Your task to perform on an android device: install app "WhatsApp Messenger" Image 0: 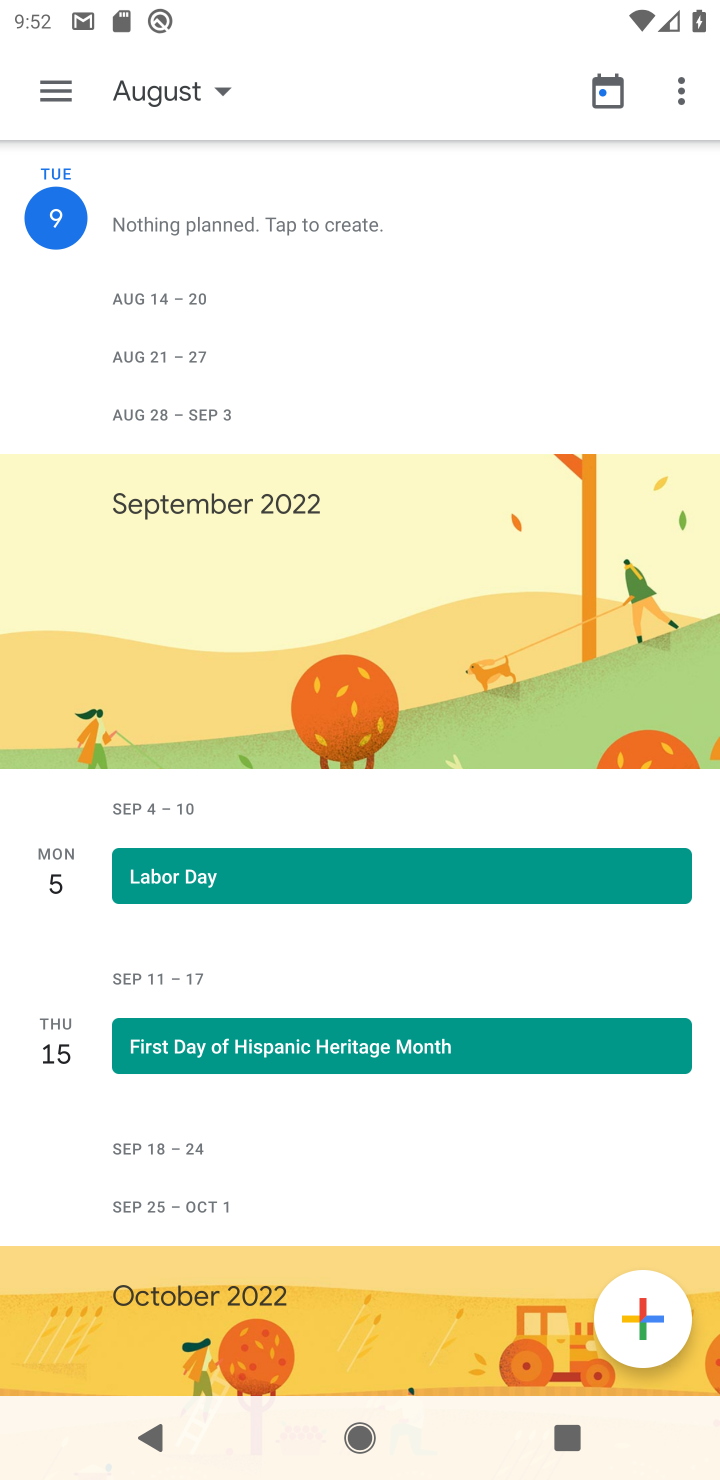
Step 0: press back button
Your task to perform on an android device: install app "WhatsApp Messenger" Image 1: 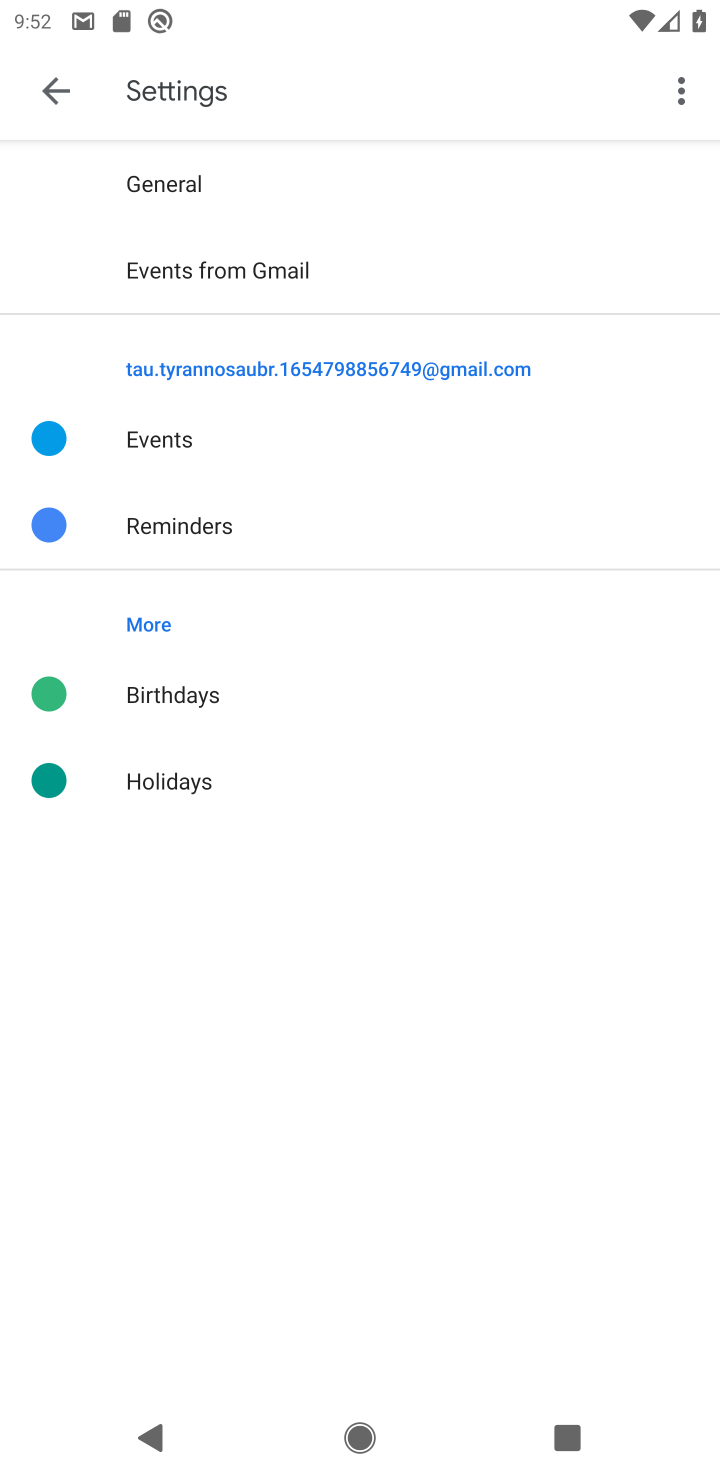
Step 1: press back button
Your task to perform on an android device: install app "WhatsApp Messenger" Image 2: 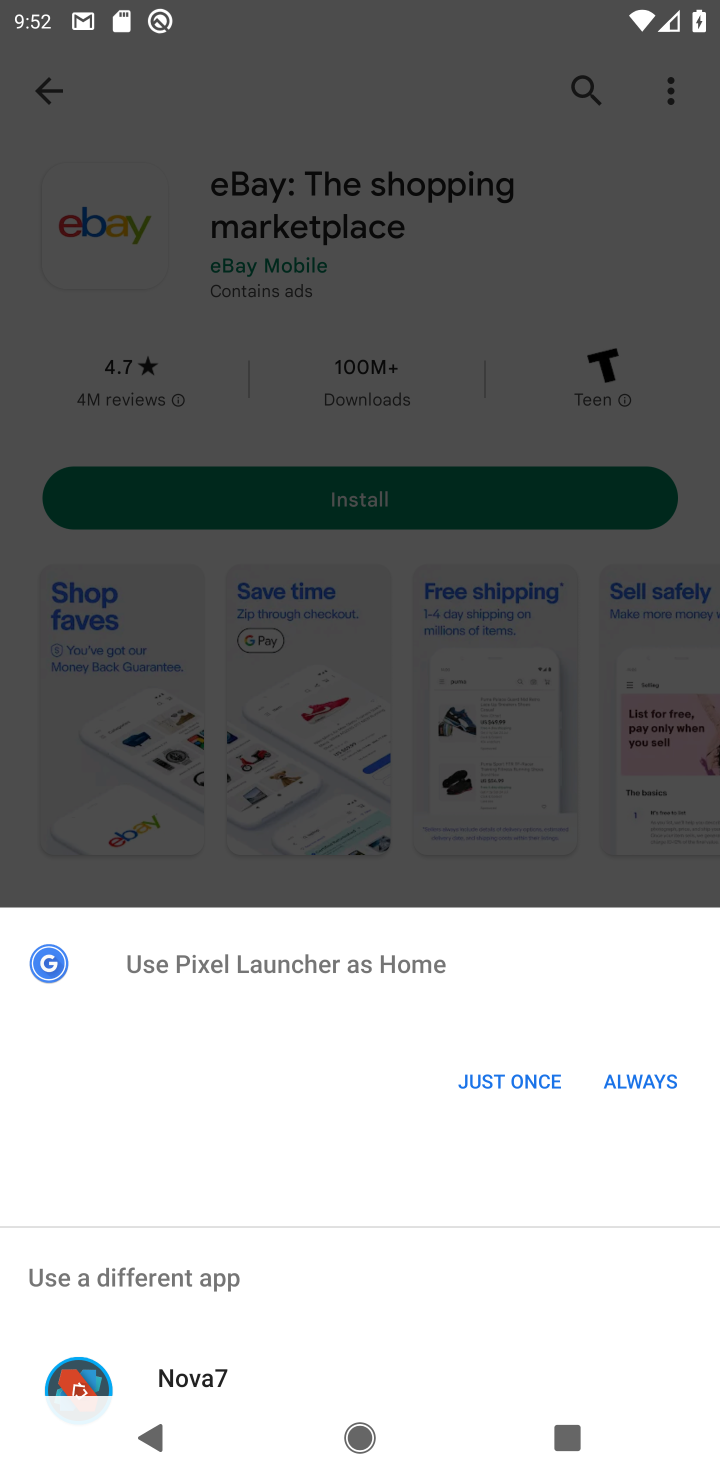
Step 2: click (658, 1077)
Your task to perform on an android device: install app "WhatsApp Messenger" Image 3: 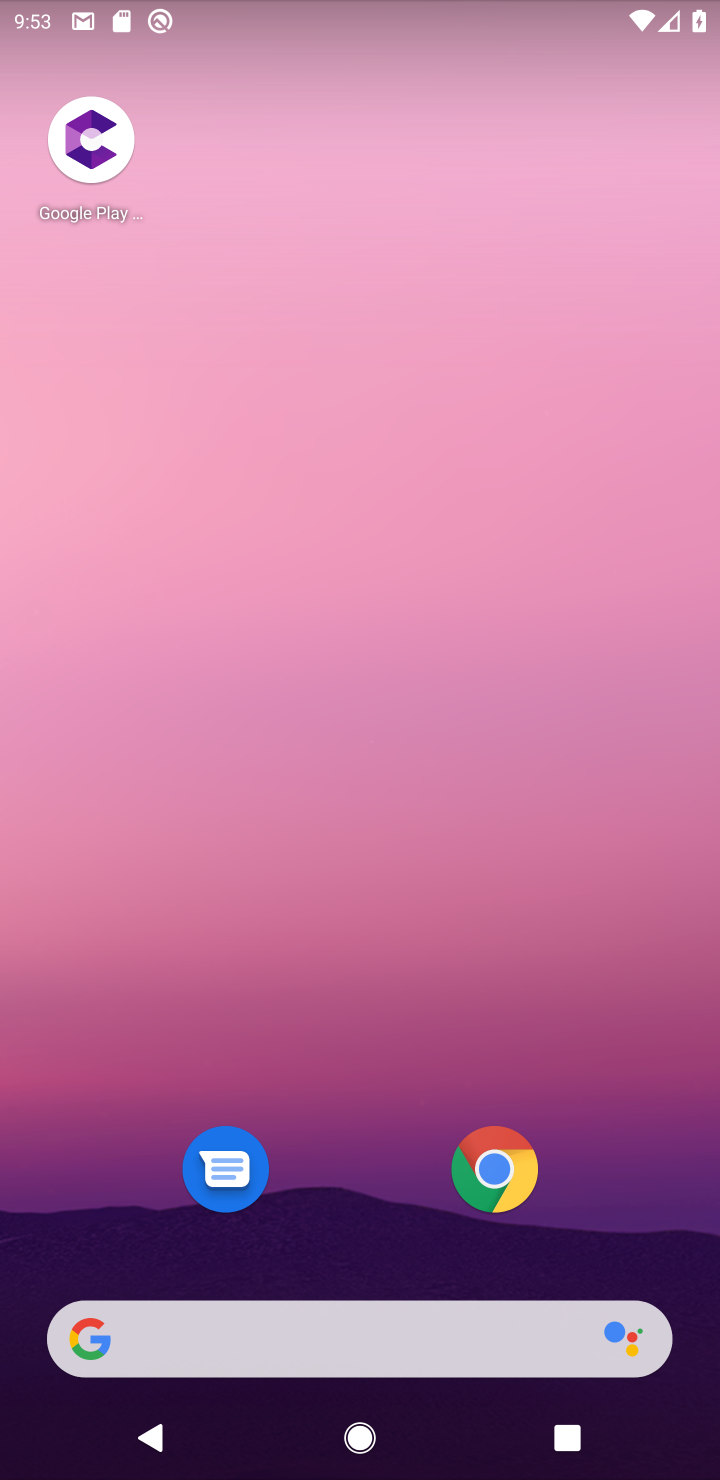
Step 3: drag from (595, 1089) to (551, 165)
Your task to perform on an android device: install app "WhatsApp Messenger" Image 4: 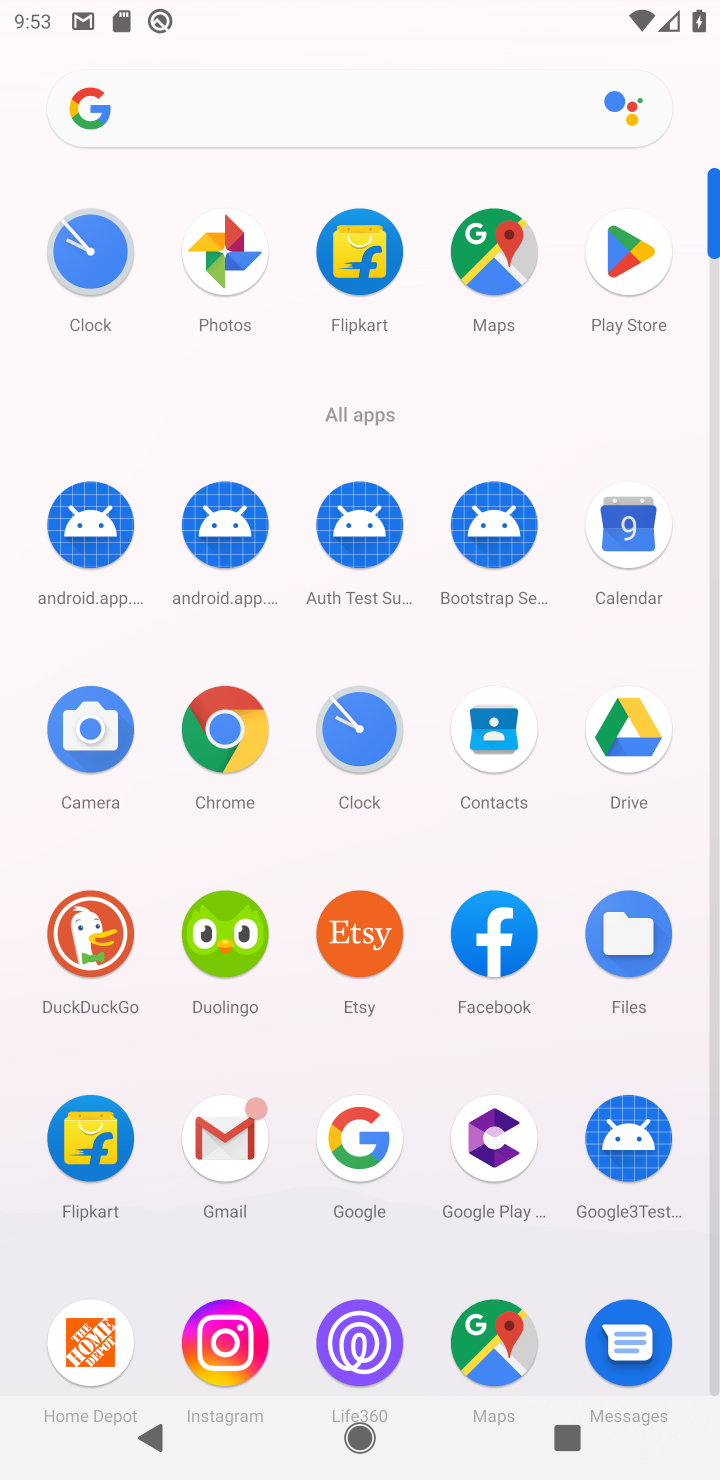
Step 4: click (632, 227)
Your task to perform on an android device: install app "WhatsApp Messenger" Image 5: 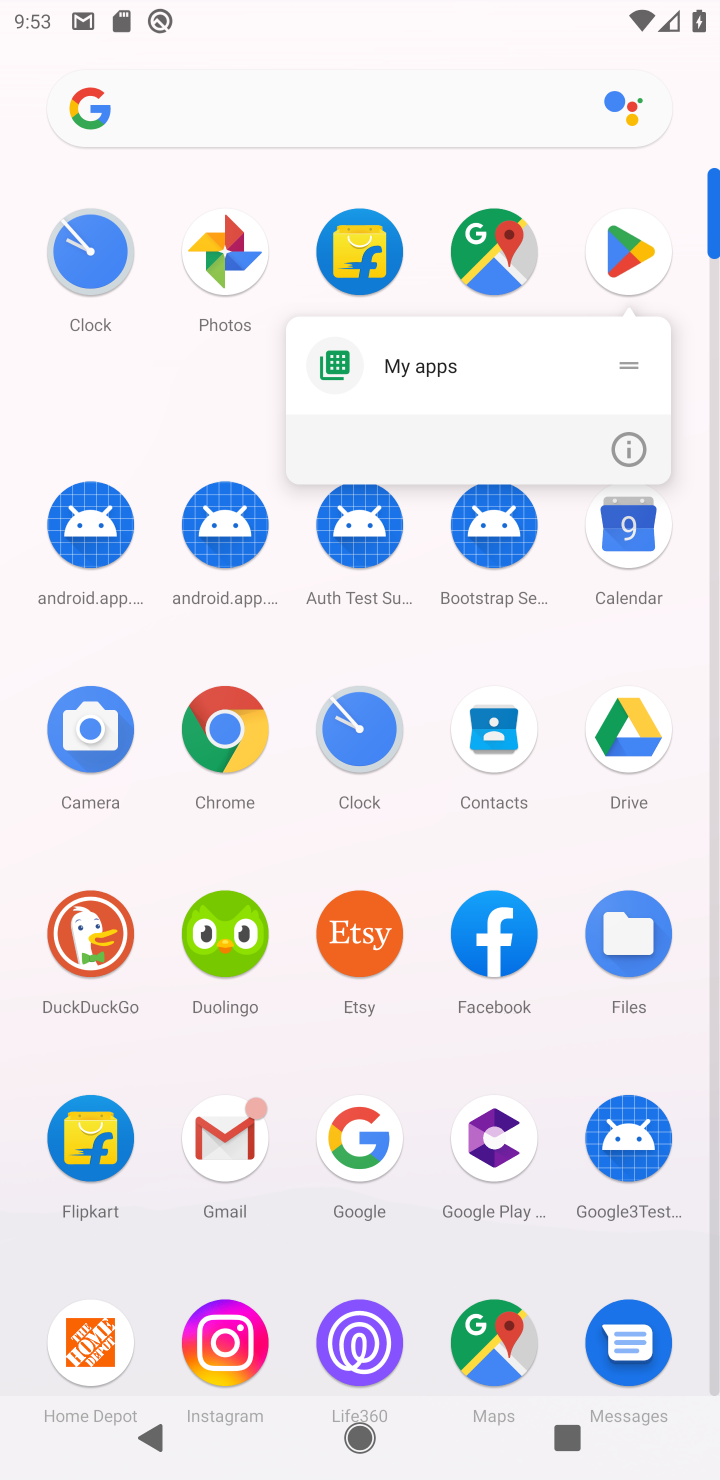
Step 5: click (640, 257)
Your task to perform on an android device: install app "WhatsApp Messenger" Image 6: 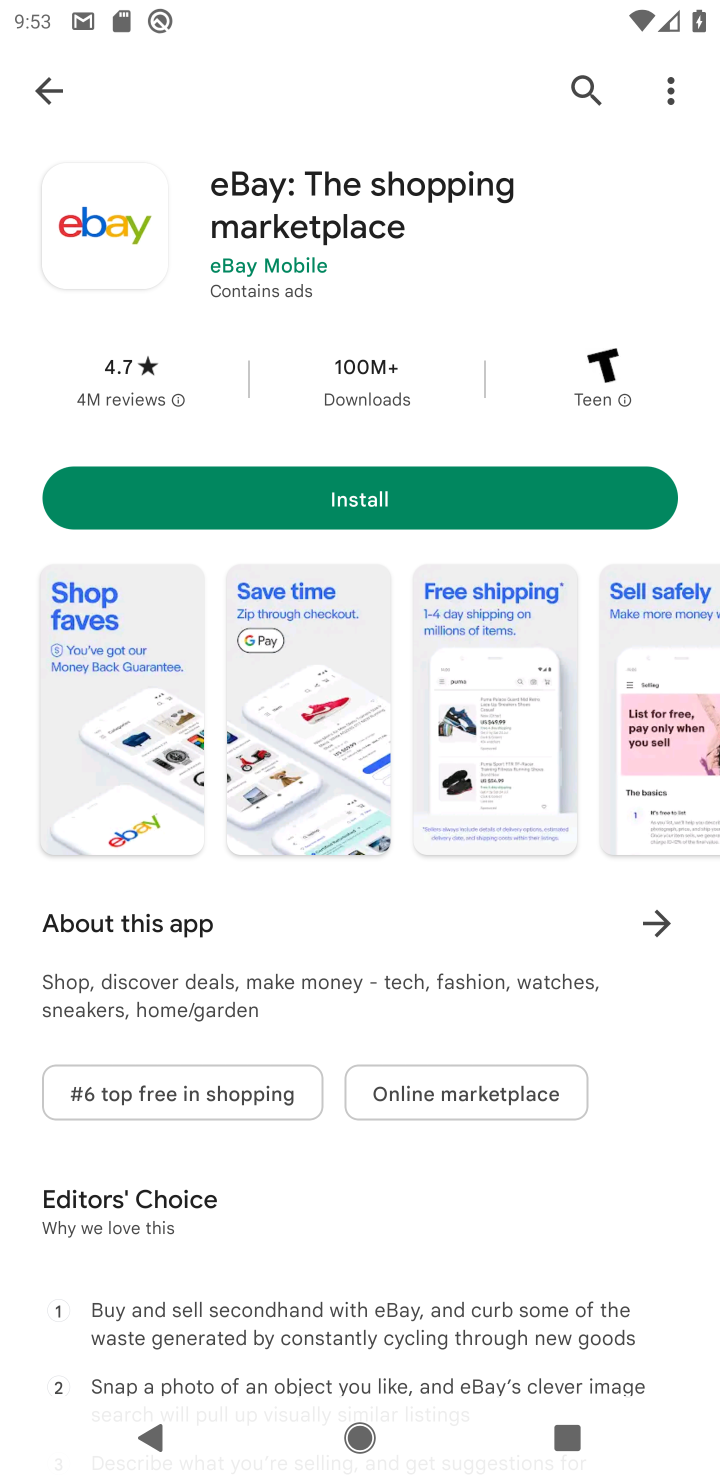
Step 6: click (595, 68)
Your task to perform on an android device: install app "WhatsApp Messenger" Image 7: 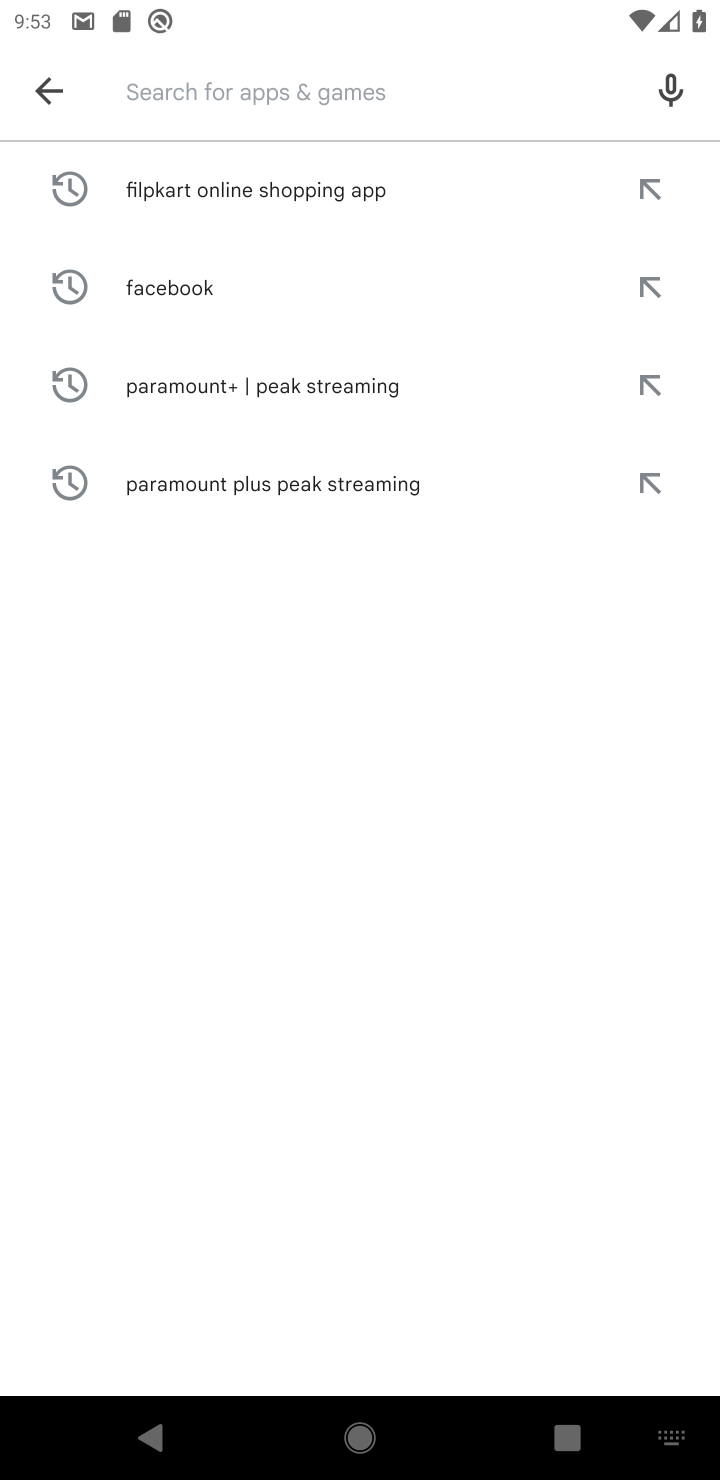
Step 7: type "whatsapp messenger"
Your task to perform on an android device: install app "WhatsApp Messenger" Image 8: 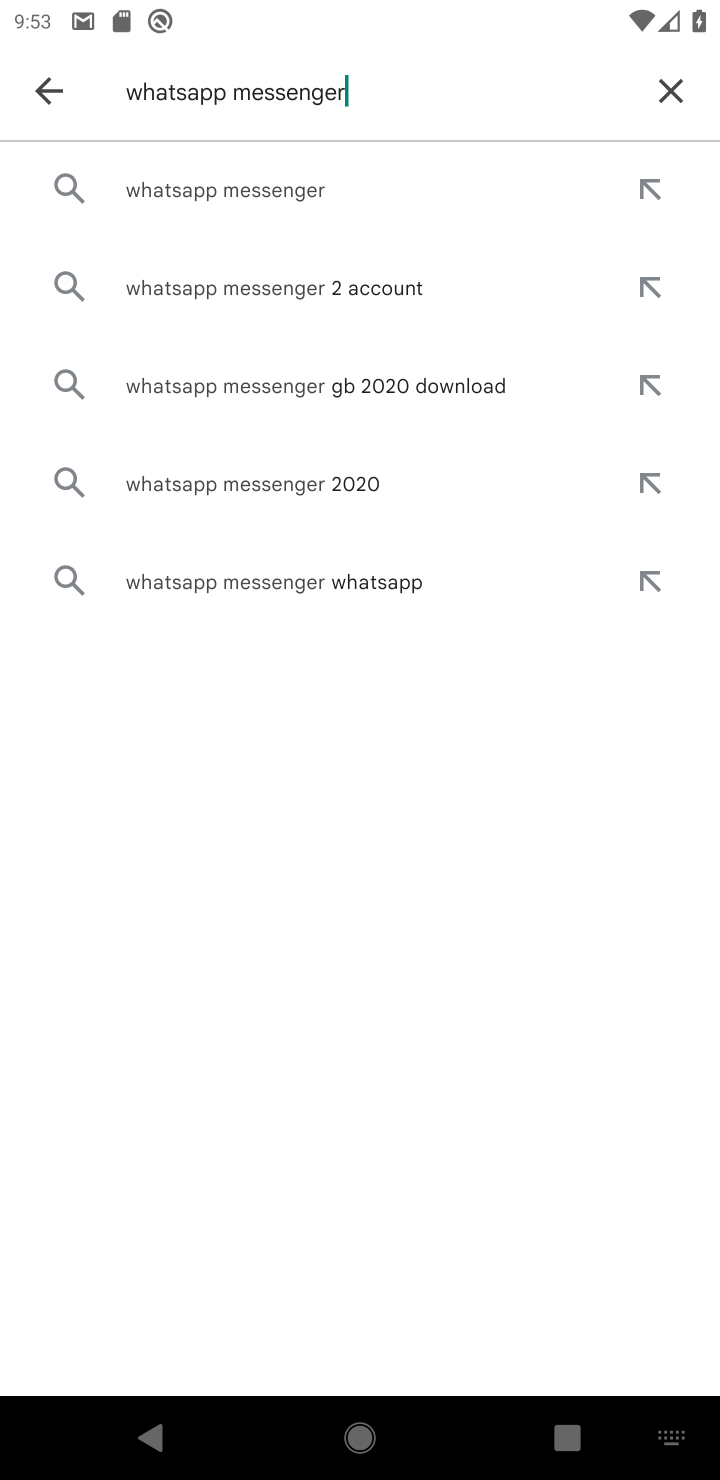
Step 8: click (299, 190)
Your task to perform on an android device: install app "WhatsApp Messenger" Image 9: 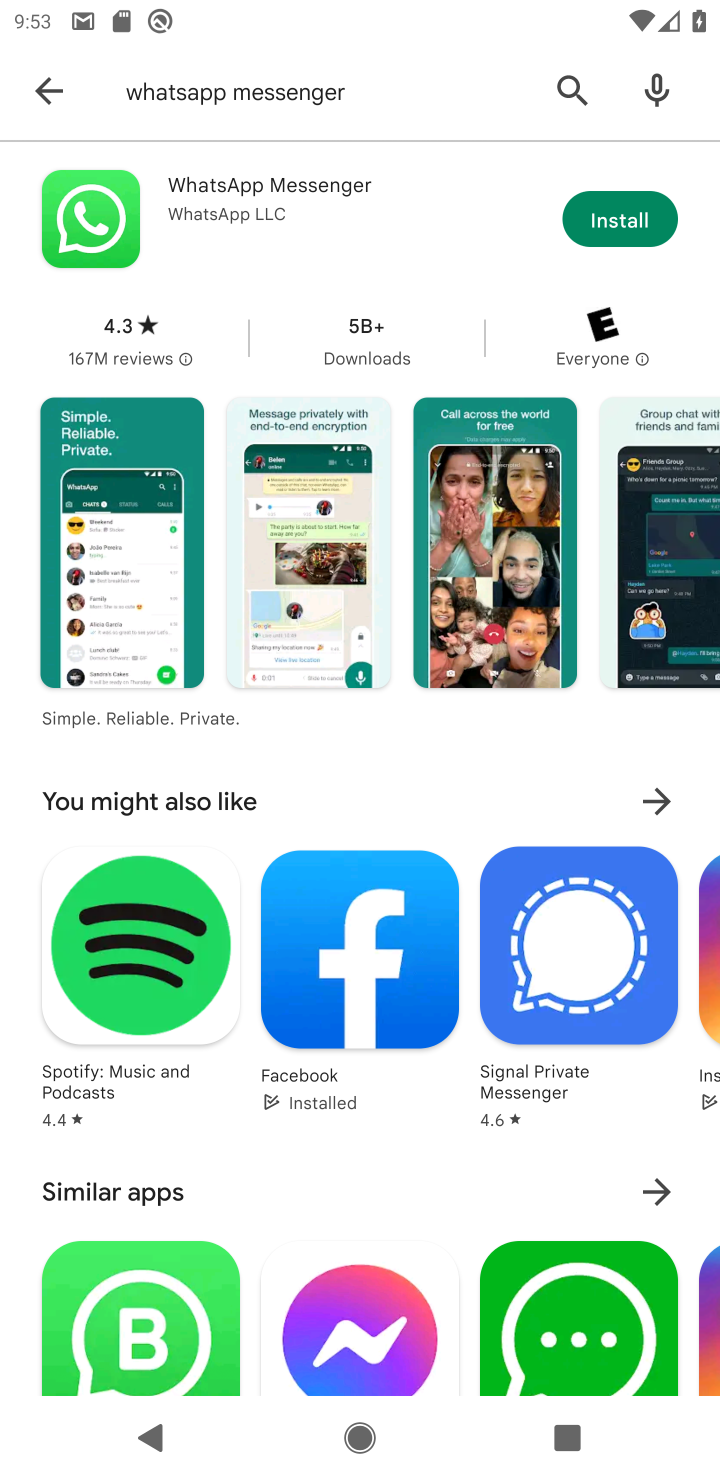
Step 9: click (611, 218)
Your task to perform on an android device: install app "WhatsApp Messenger" Image 10: 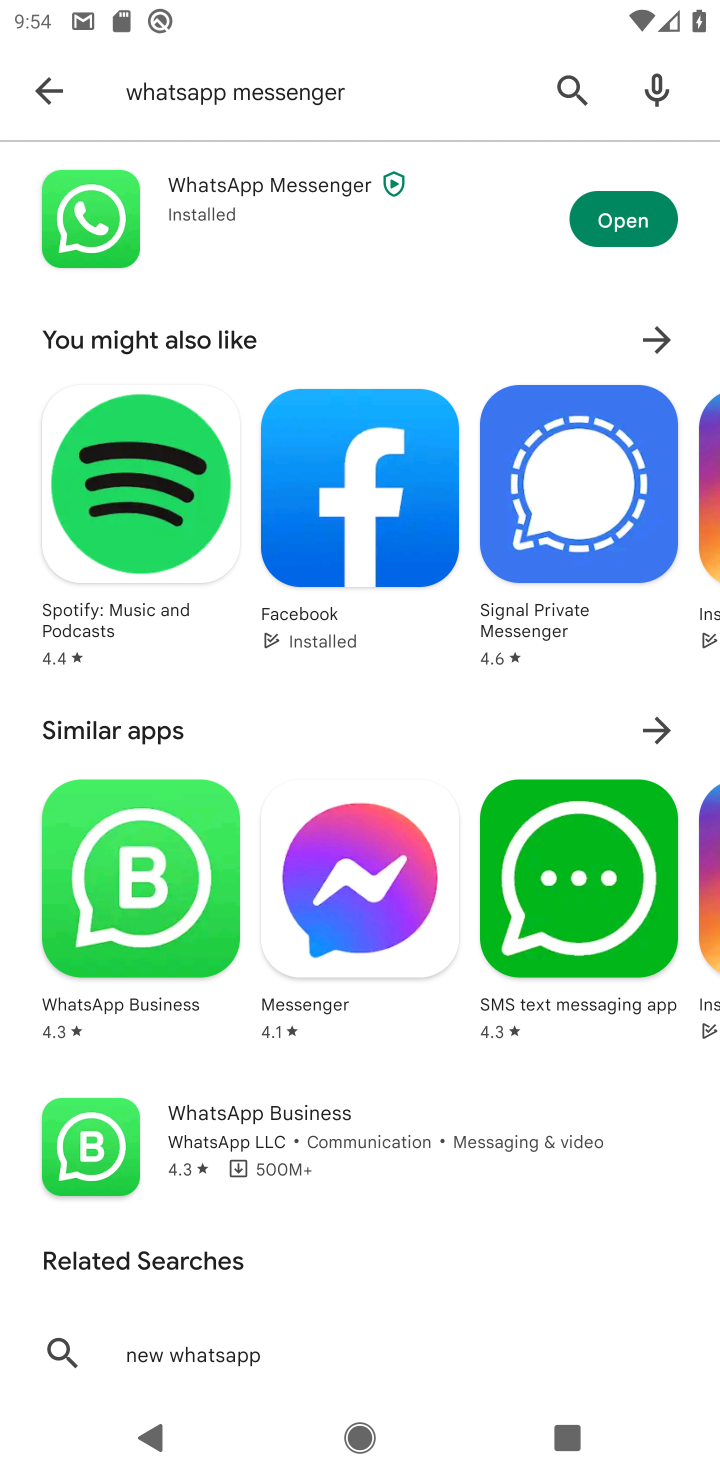
Step 10: task complete